Your task to perform on an android device: Add bose soundlink to the cart on bestbuy, then select checkout. Image 0: 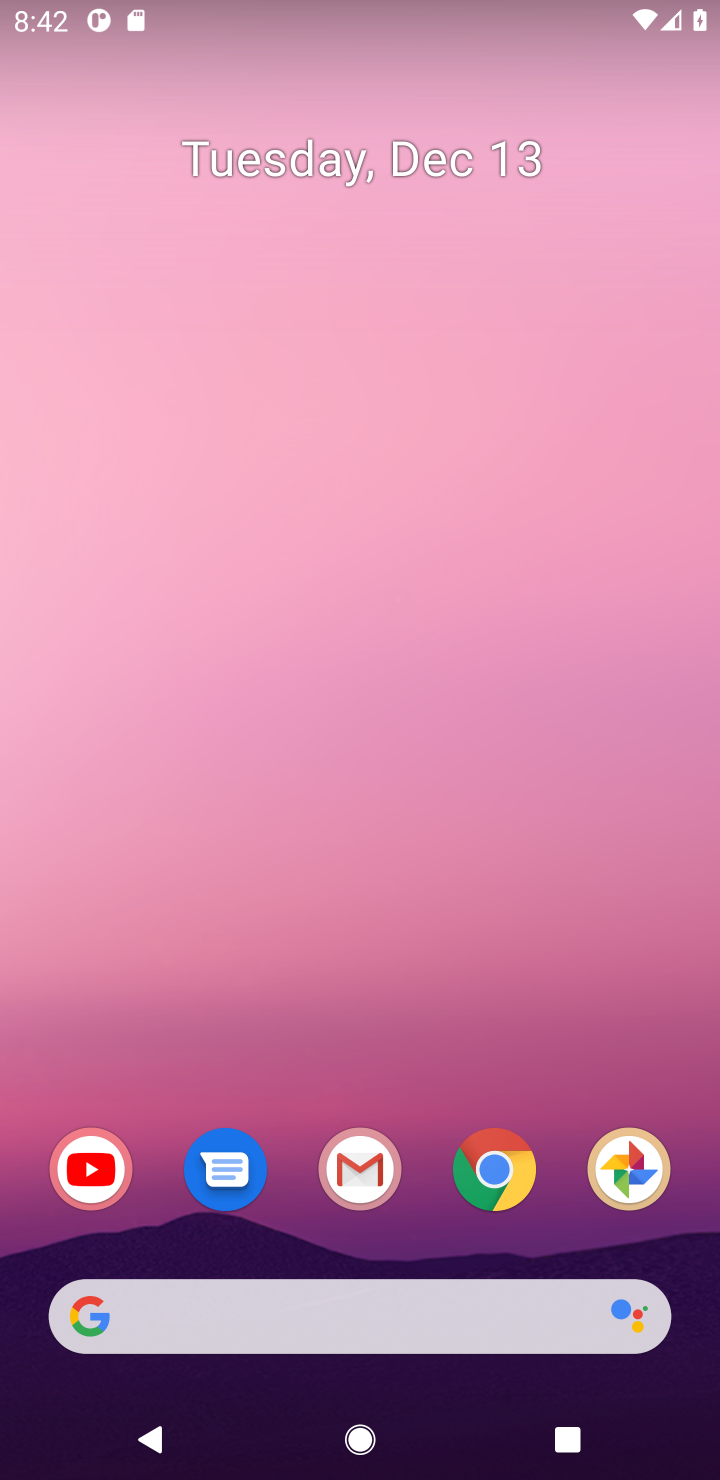
Step 0: click (446, 1329)
Your task to perform on an android device: Add bose soundlink to the cart on bestbuy, then select checkout. Image 1: 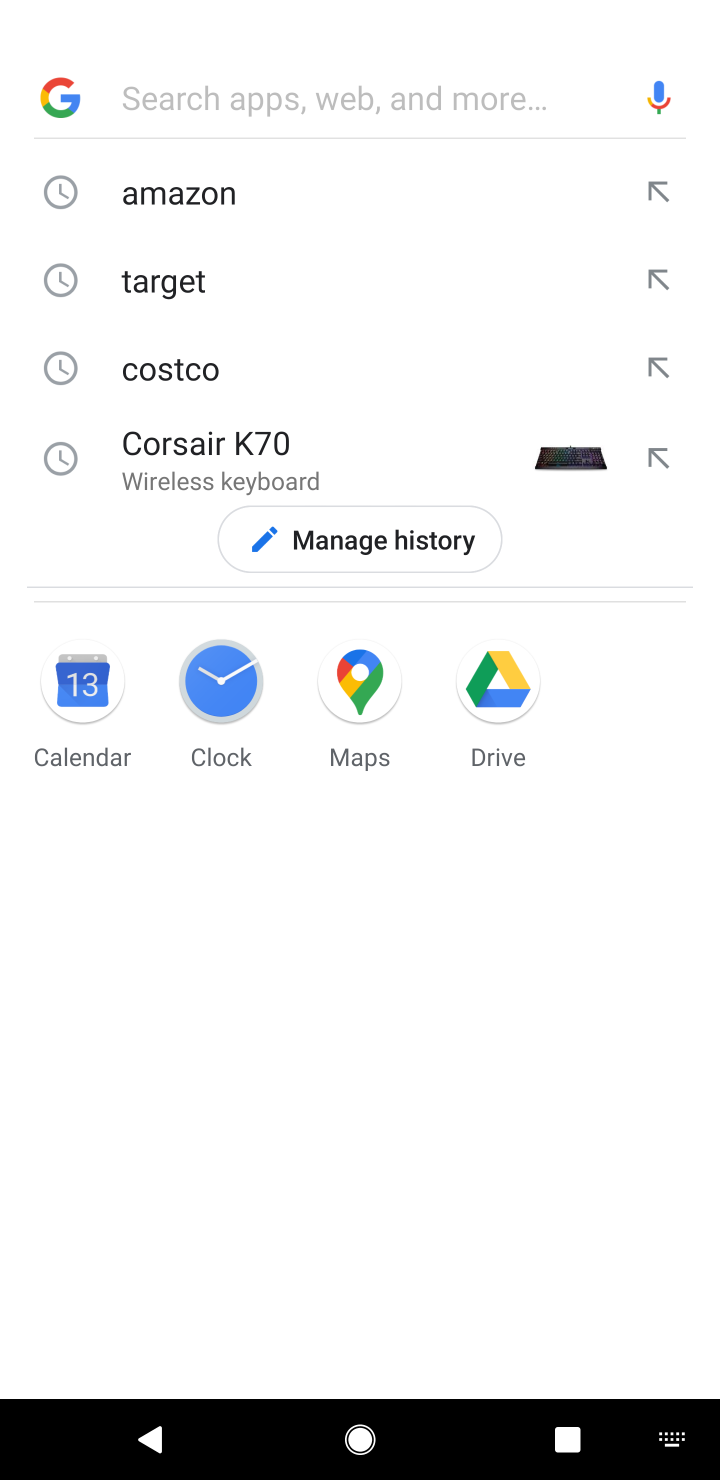
Step 1: type "bestbuy"
Your task to perform on an android device: Add bose soundlink to the cart on bestbuy, then select checkout. Image 2: 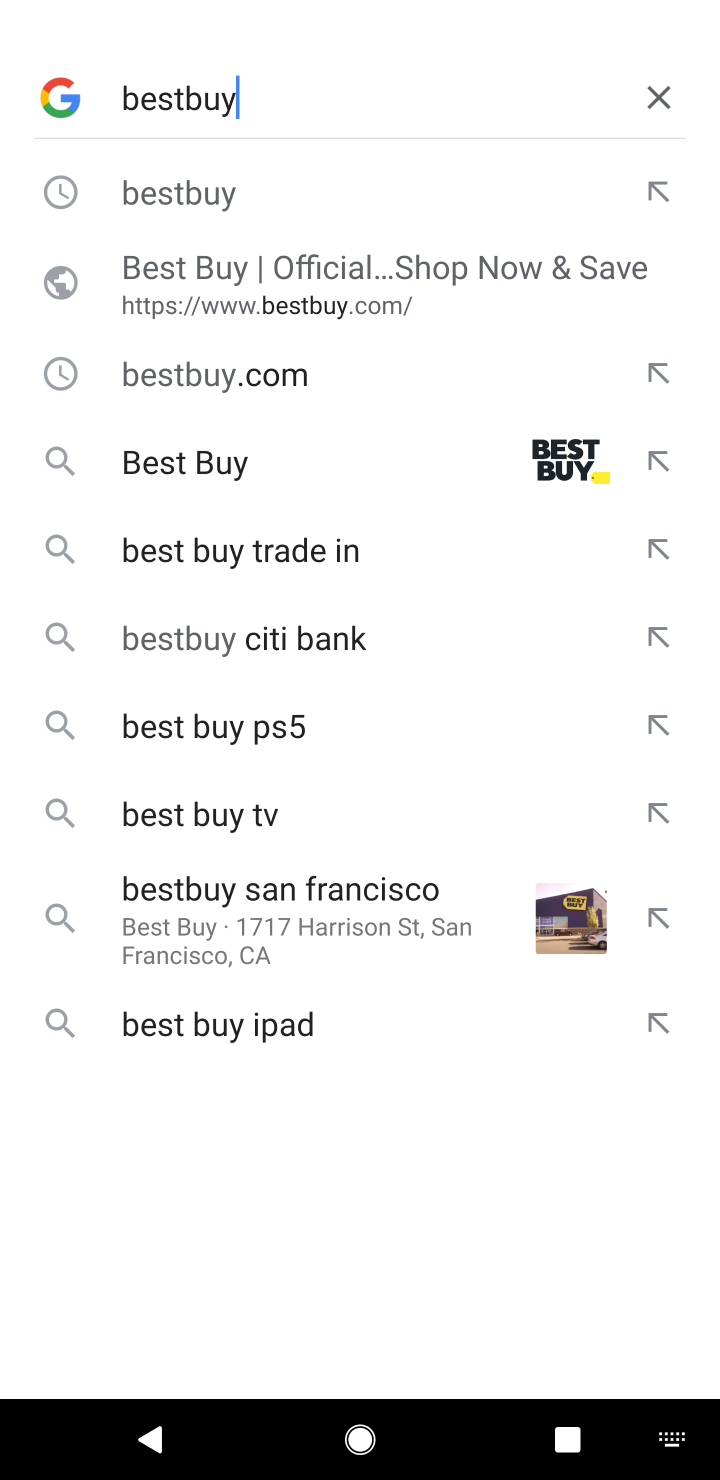
Step 2: click (275, 276)
Your task to perform on an android device: Add bose soundlink to the cart on bestbuy, then select checkout. Image 3: 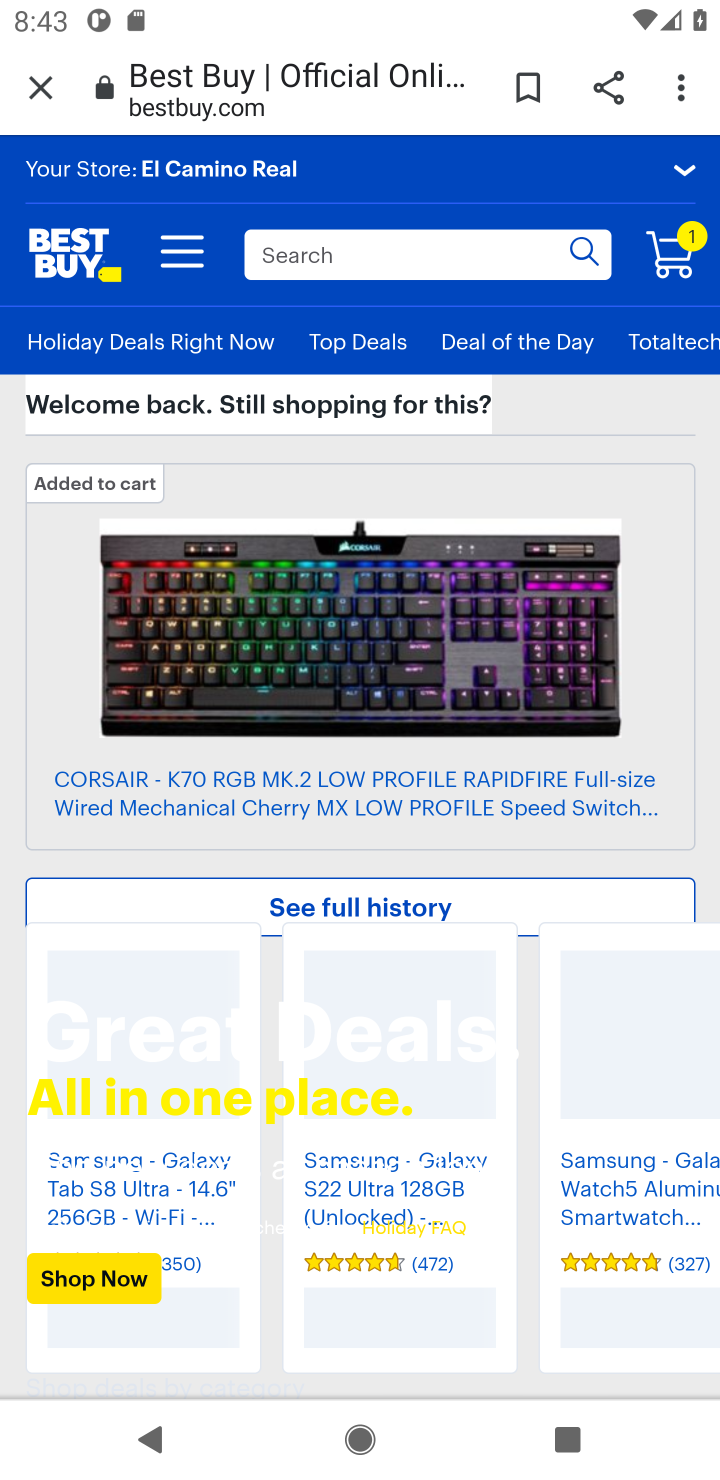
Step 3: task complete